Your task to perform on an android device: open app "Facebook" Image 0: 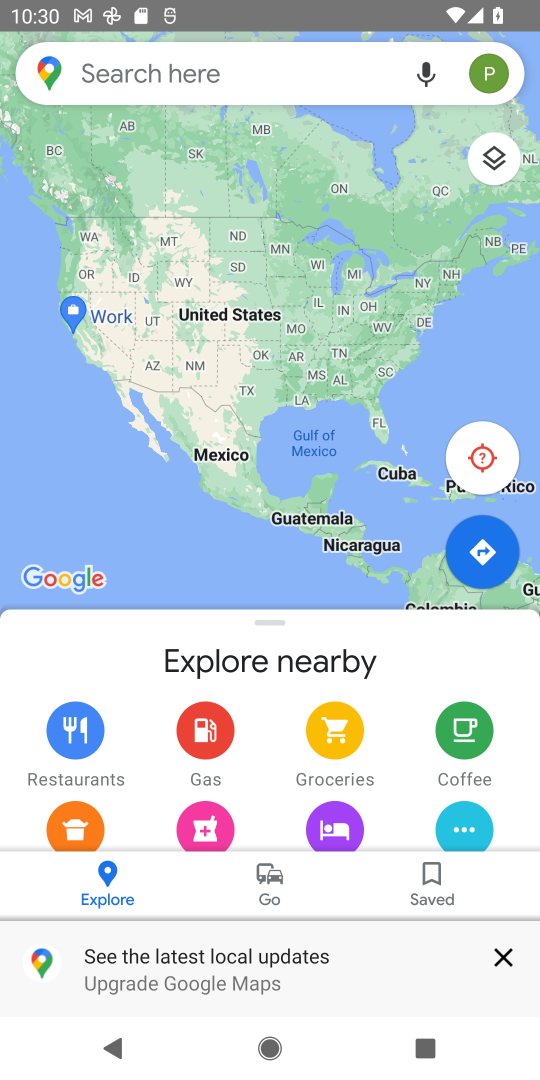
Step 0: press home button
Your task to perform on an android device: open app "Facebook" Image 1: 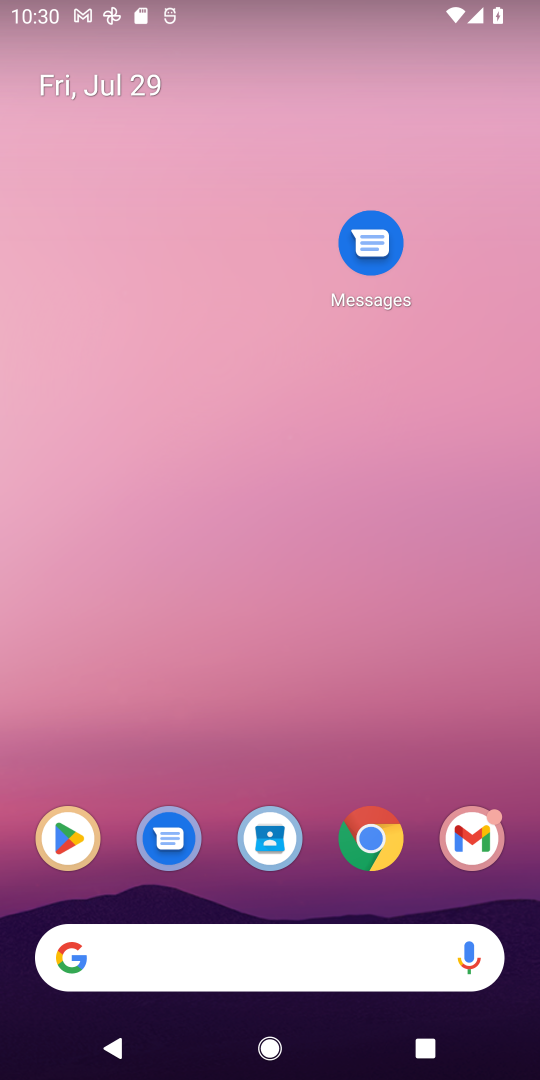
Step 1: click (65, 836)
Your task to perform on an android device: open app "Facebook" Image 2: 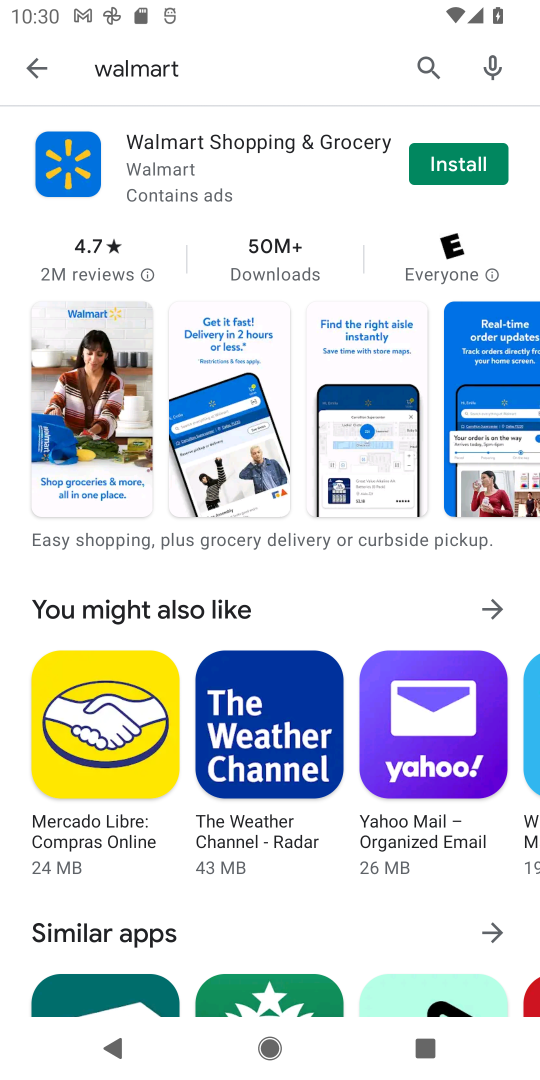
Step 2: click (197, 58)
Your task to perform on an android device: open app "Facebook" Image 3: 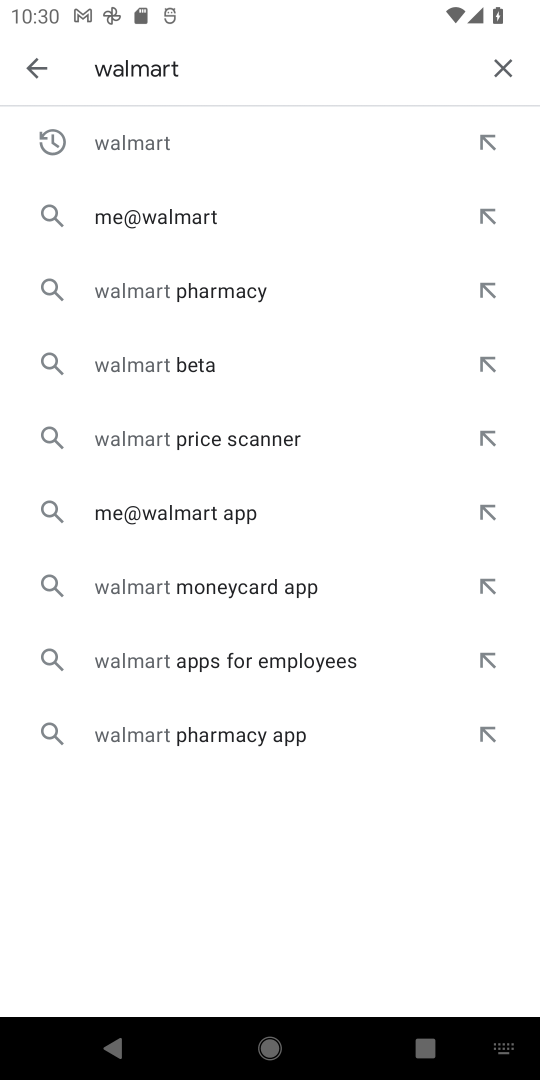
Step 3: click (505, 71)
Your task to perform on an android device: open app "Facebook" Image 4: 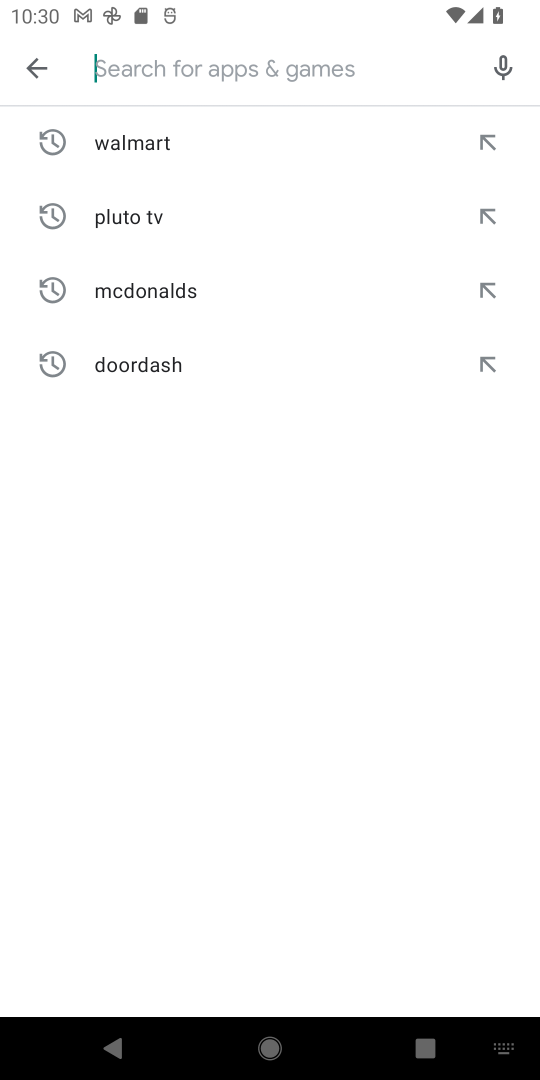
Step 4: type "Facebook"
Your task to perform on an android device: open app "Facebook" Image 5: 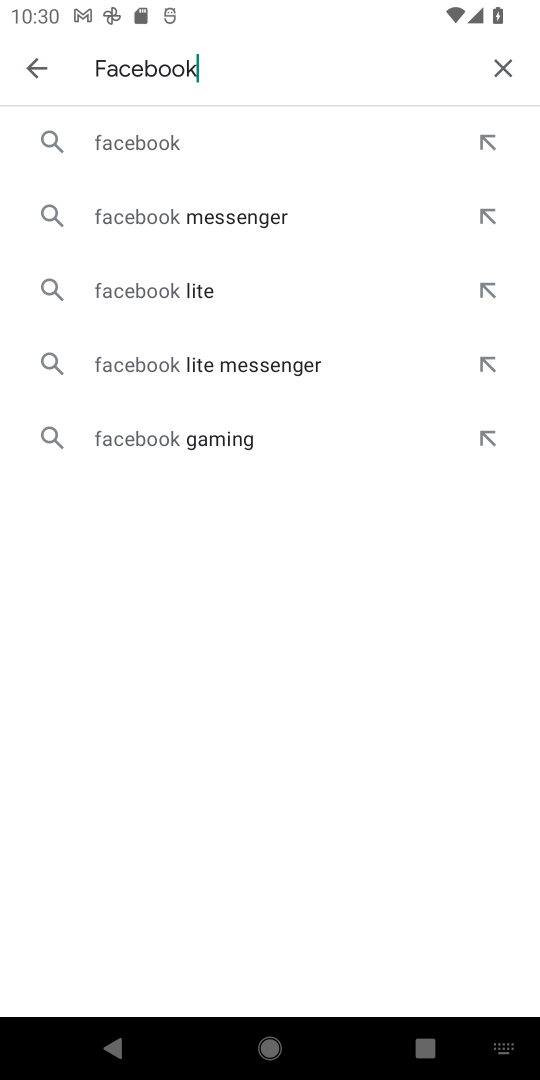
Step 5: click (182, 159)
Your task to perform on an android device: open app "Facebook" Image 6: 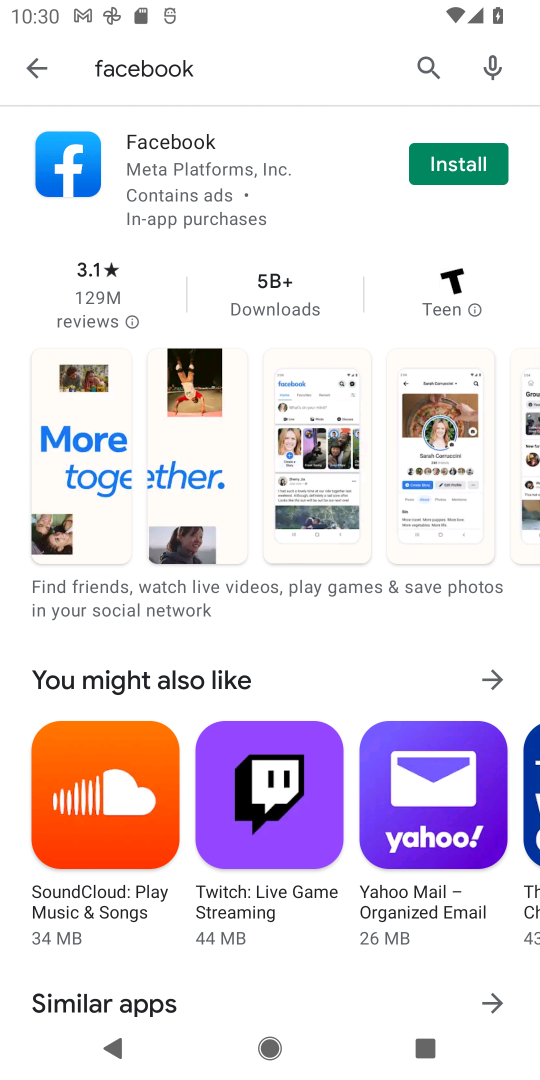
Step 6: task complete